Your task to perform on an android device: Open calendar and show me the third week of next month Image 0: 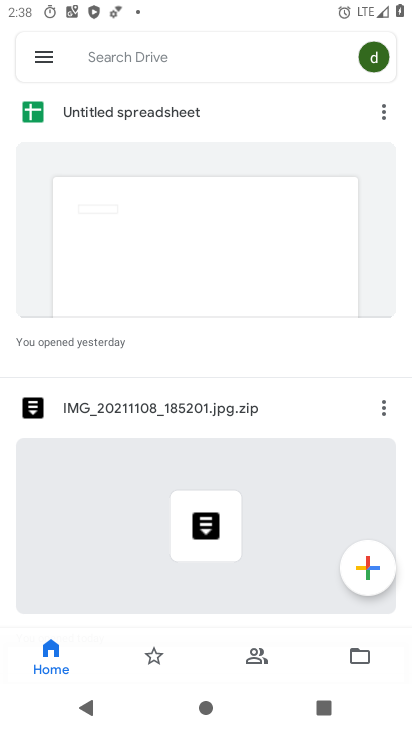
Step 0: press home button
Your task to perform on an android device: Open calendar and show me the third week of next month Image 1: 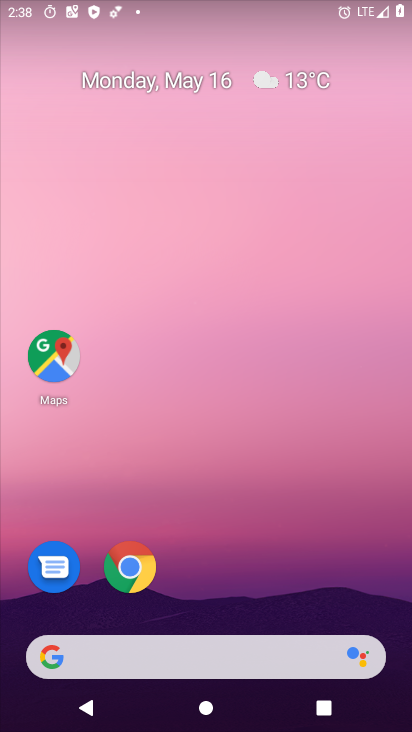
Step 1: drag from (108, 266) to (113, 44)
Your task to perform on an android device: Open calendar and show me the third week of next month Image 2: 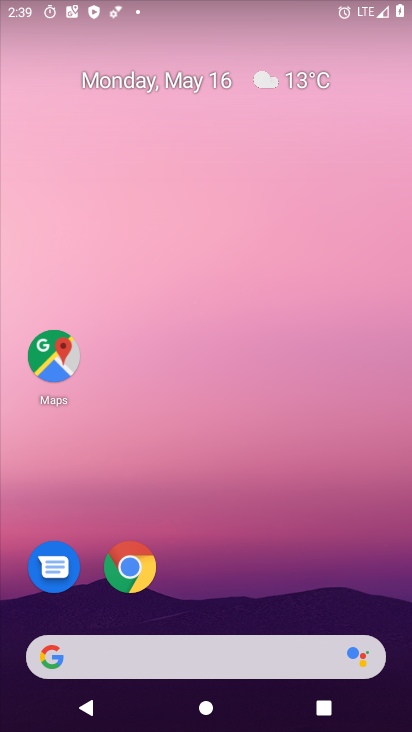
Step 2: drag from (225, 525) to (168, 36)
Your task to perform on an android device: Open calendar and show me the third week of next month Image 3: 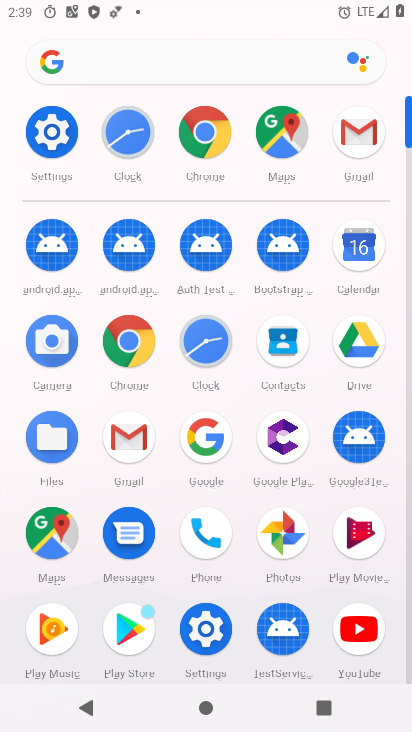
Step 3: click (363, 238)
Your task to perform on an android device: Open calendar and show me the third week of next month Image 4: 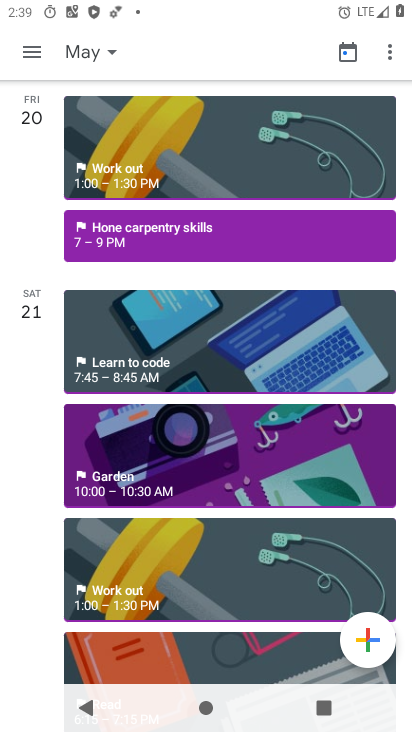
Step 4: click (76, 39)
Your task to perform on an android device: Open calendar and show me the third week of next month Image 5: 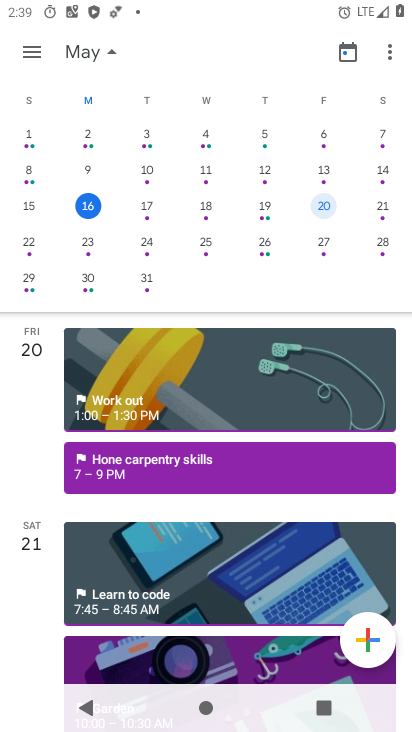
Step 5: drag from (398, 156) to (35, 155)
Your task to perform on an android device: Open calendar and show me the third week of next month Image 6: 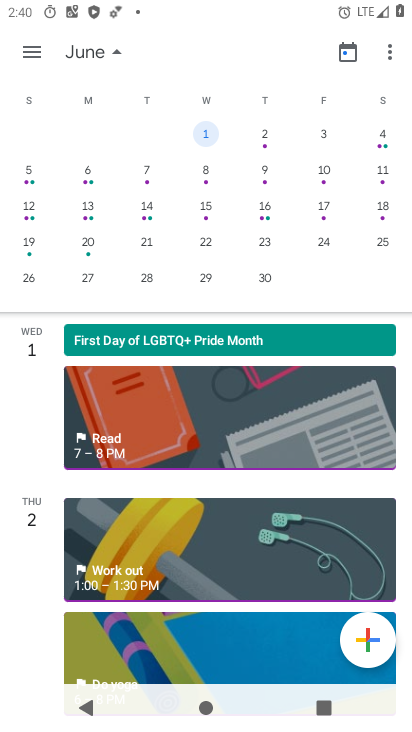
Step 6: click (259, 202)
Your task to perform on an android device: Open calendar and show me the third week of next month Image 7: 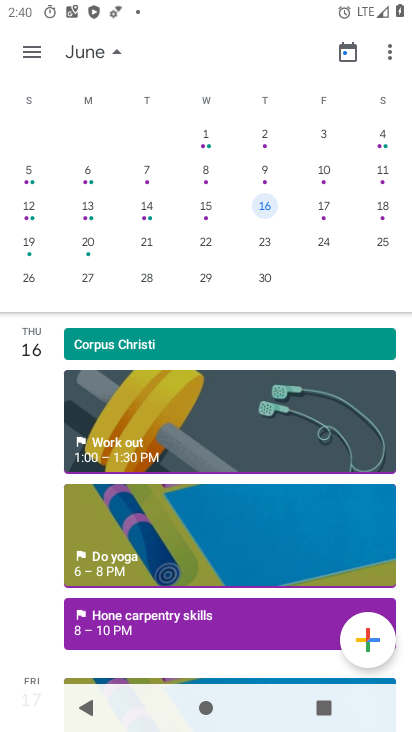
Step 7: task complete